Your task to perform on an android device: Check the news Image 0: 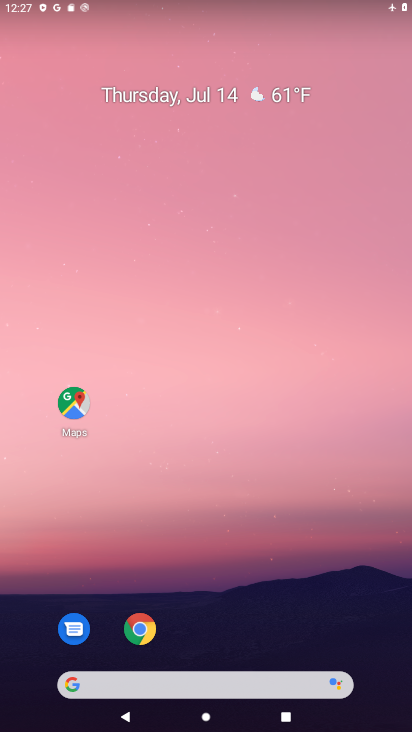
Step 0: click (206, 680)
Your task to perform on an android device: Check the news Image 1: 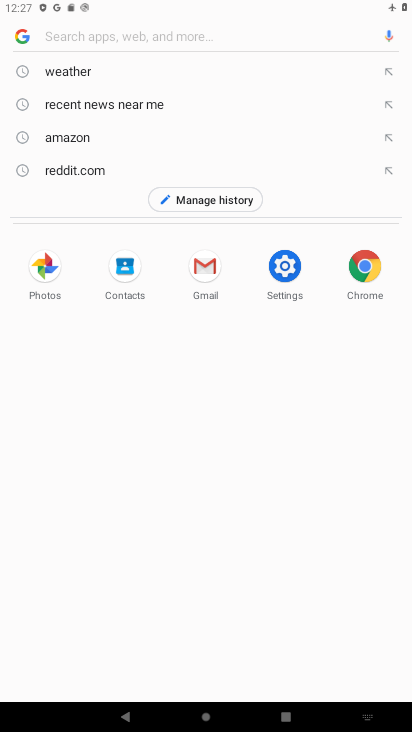
Step 1: click (22, 29)
Your task to perform on an android device: Check the news Image 2: 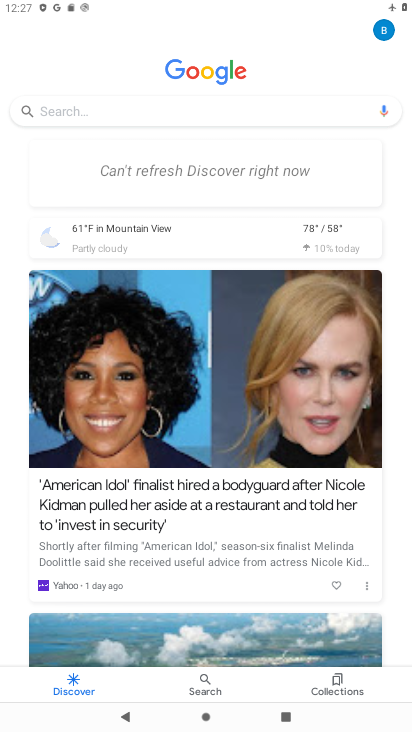
Step 2: task complete